Your task to perform on an android device: toggle data saver in the chrome app Image 0: 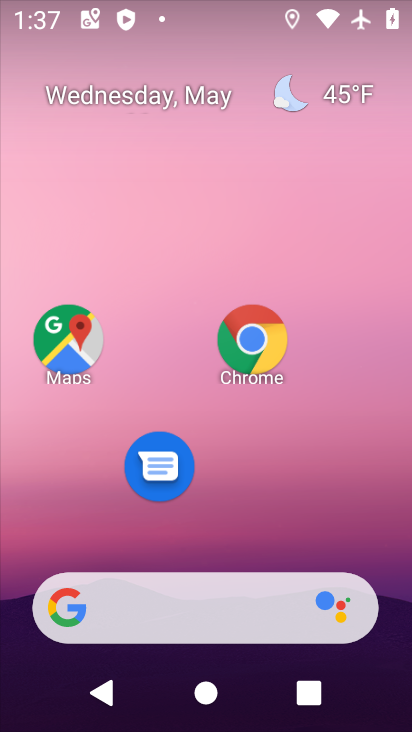
Step 0: press home button
Your task to perform on an android device: toggle data saver in the chrome app Image 1: 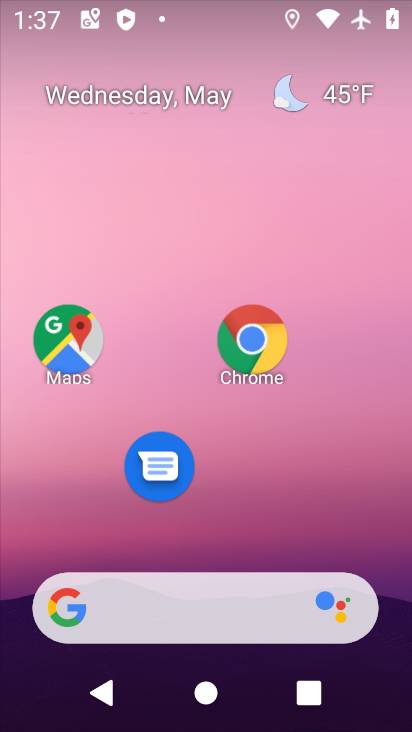
Step 1: click (246, 354)
Your task to perform on an android device: toggle data saver in the chrome app Image 2: 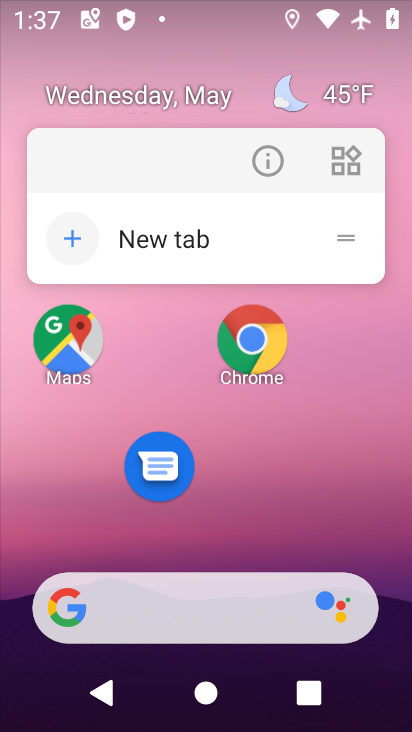
Step 2: click (269, 358)
Your task to perform on an android device: toggle data saver in the chrome app Image 3: 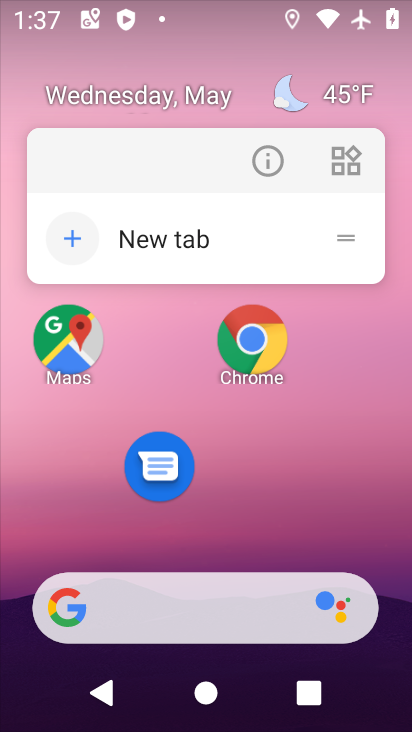
Step 3: click (251, 351)
Your task to perform on an android device: toggle data saver in the chrome app Image 4: 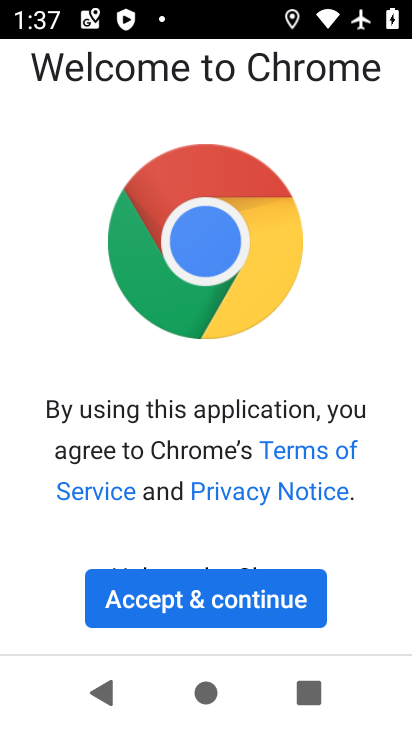
Step 4: click (231, 594)
Your task to perform on an android device: toggle data saver in the chrome app Image 5: 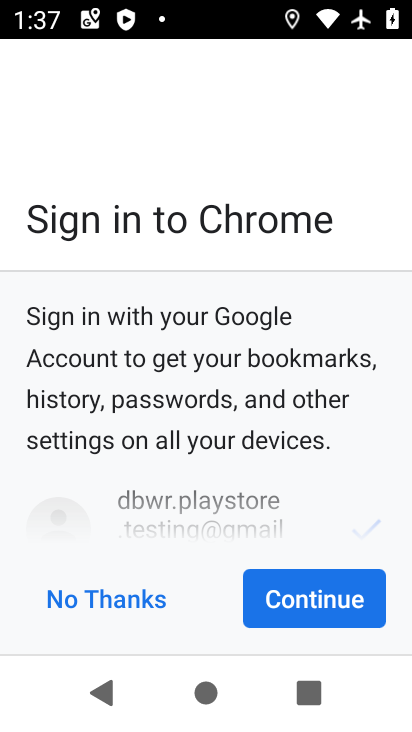
Step 5: click (309, 601)
Your task to perform on an android device: toggle data saver in the chrome app Image 6: 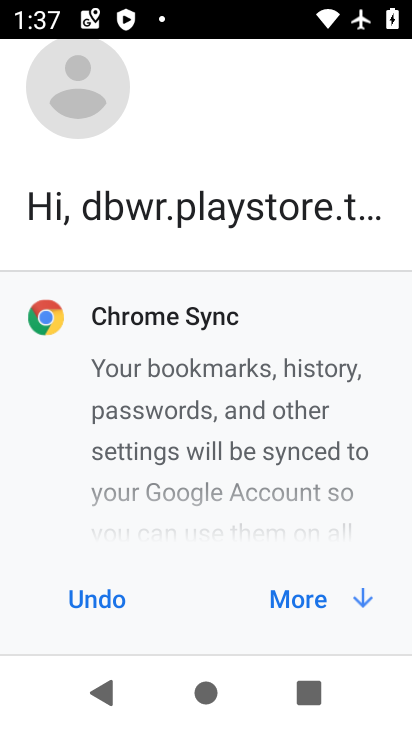
Step 6: click (314, 601)
Your task to perform on an android device: toggle data saver in the chrome app Image 7: 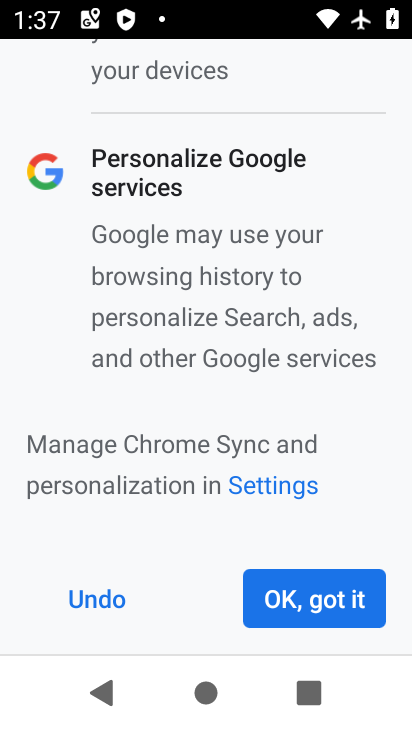
Step 7: click (314, 601)
Your task to perform on an android device: toggle data saver in the chrome app Image 8: 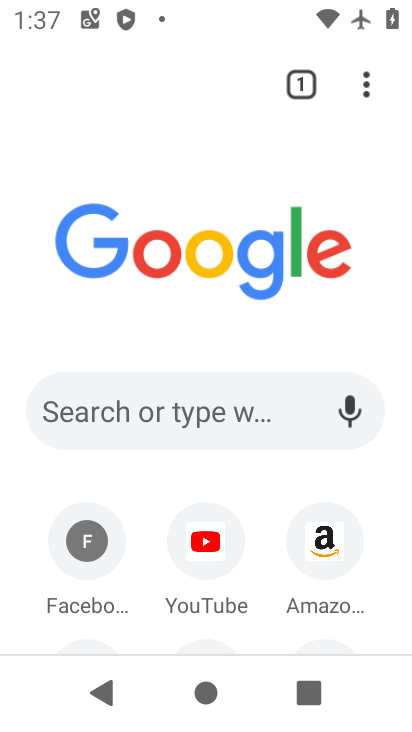
Step 8: drag from (360, 90) to (162, 511)
Your task to perform on an android device: toggle data saver in the chrome app Image 9: 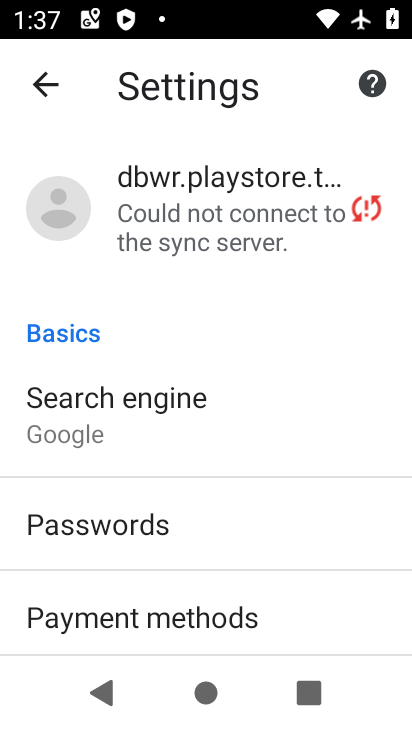
Step 9: drag from (211, 564) to (298, 69)
Your task to perform on an android device: toggle data saver in the chrome app Image 10: 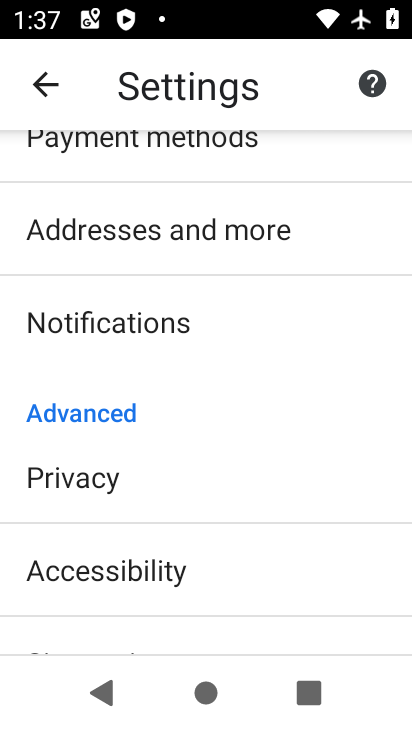
Step 10: drag from (214, 534) to (333, 114)
Your task to perform on an android device: toggle data saver in the chrome app Image 11: 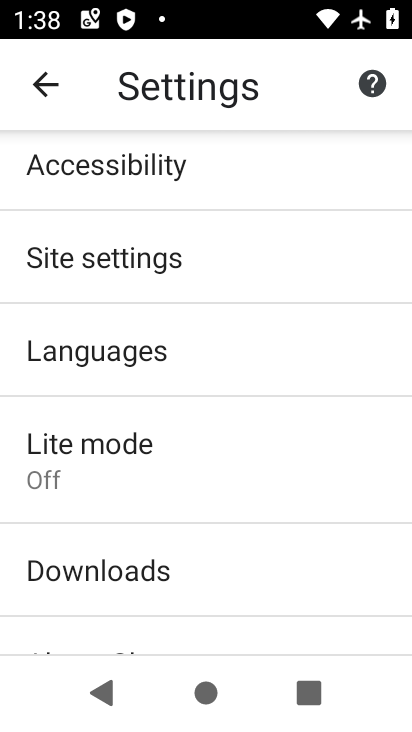
Step 11: click (127, 461)
Your task to perform on an android device: toggle data saver in the chrome app Image 12: 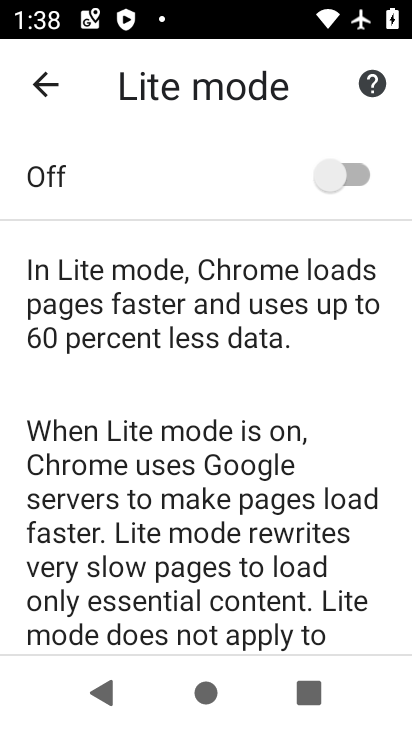
Step 12: click (351, 180)
Your task to perform on an android device: toggle data saver in the chrome app Image 13: 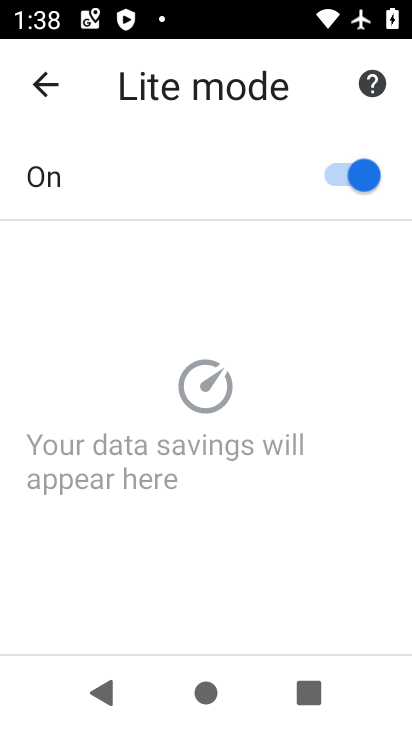
Step 13: task complete